Your task to perform on an android device: open app "HBO Max: Stream TV & Movies" (install if not already installed), go to login, and select forgot password Image 0: 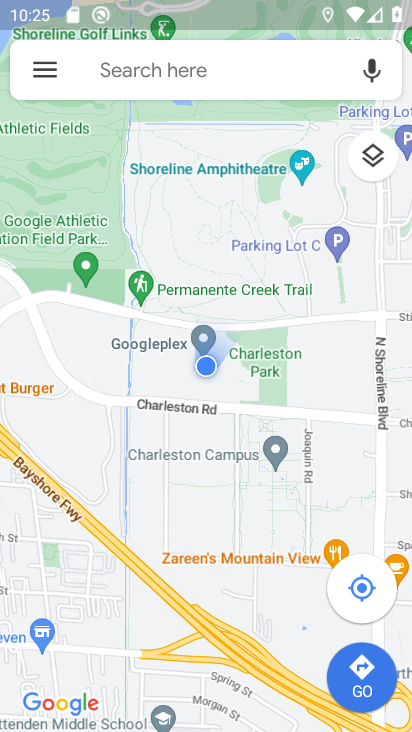
Step 0: click (165, 62)
Your task to perform on an android device: open app "HBO Max: Stream TV & Movies" (install if not already installed), go to login, and select forgot password Image 1: 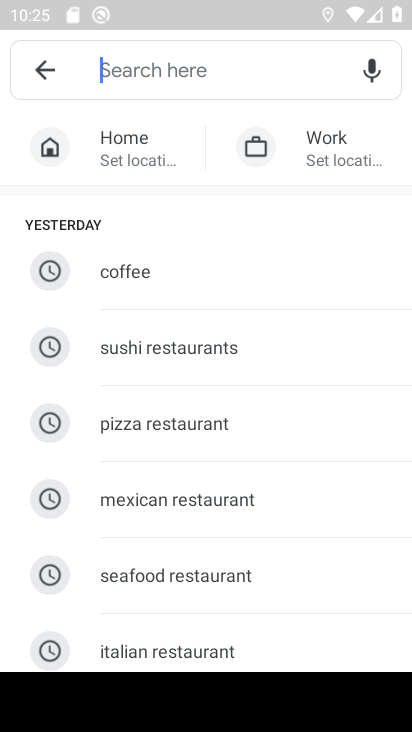
Step 1: type "HBO Max: Stream TV & Movies"
Your task to perform on an android device: open app "HBO Max: Stream TV & Movies" (install if not already installed), go to login, and select forgot password Image 2: 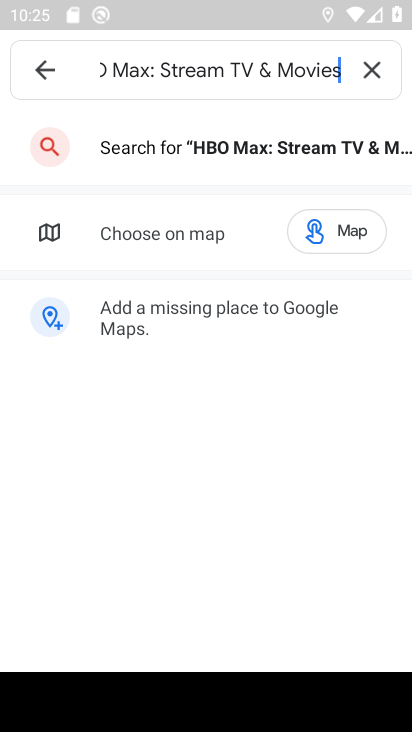
Step 2: click (215, 145)
Your task to perform on an android device: open app "HBO Max: Stream TV & Movies" (install if not already installed), go to login, and select forgot password Image 3: 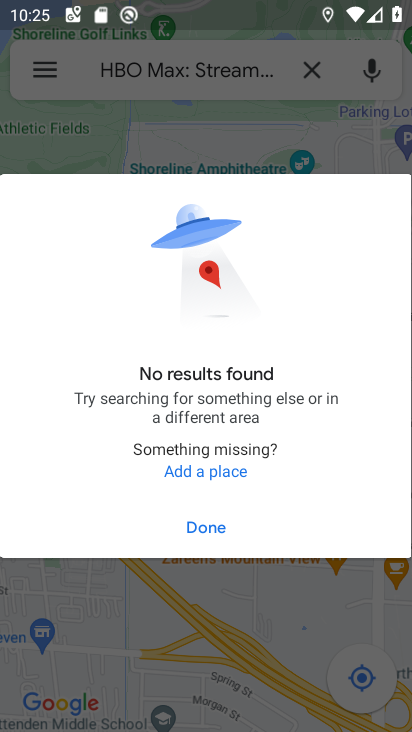
Step 3: press home button
Your task to perform on an android device: open app "HBO Max: Stream TV & Movies" (install if not already installed), go to login, and select forgot password Image 4: 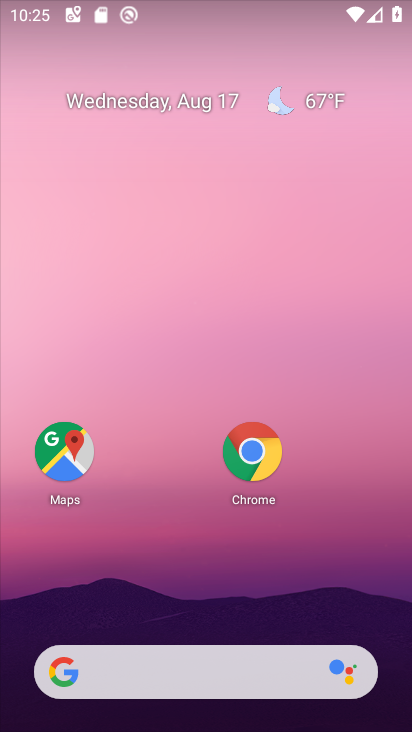
Step 4: drag from (168, 602) to (224, 195)
Your task to perform on an android device: open app "HBO Max: Stream TV & Movies" (install if not already installed), go to login, and select forgot password Image 5: 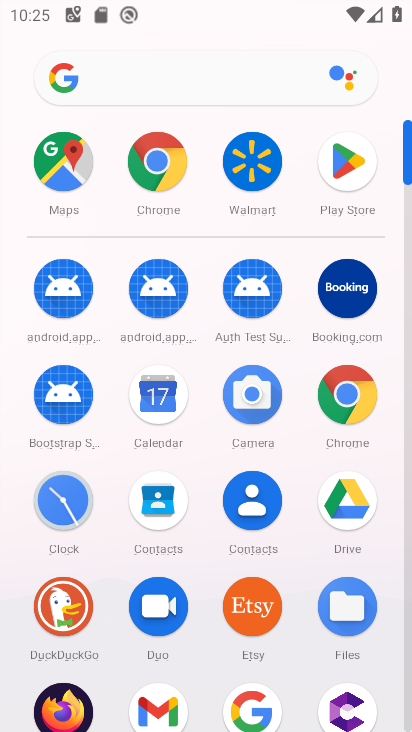
Step 5: click (345, 172)
Your task to perform on an android device: open app "HBO Max: Stream TV & Movies" (install if not already installed), go to login, and select forgot password Image 6: 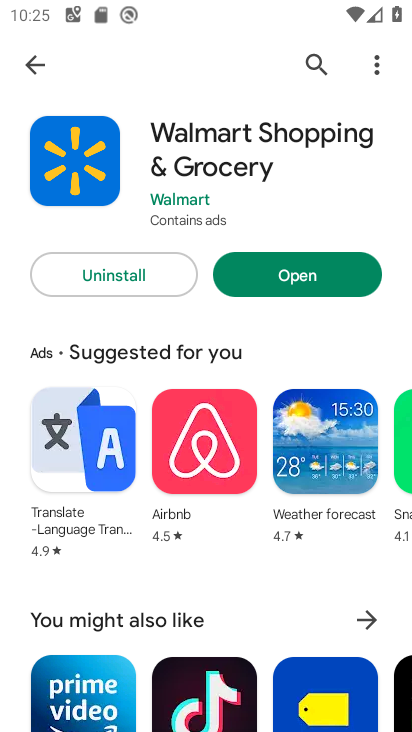
Step 6: click (33, 60)
Your task to perform on an android device: open app "HBO Max: Stream TV & Movies" (install if not already installed), go to login, and select forgot password Image 7: 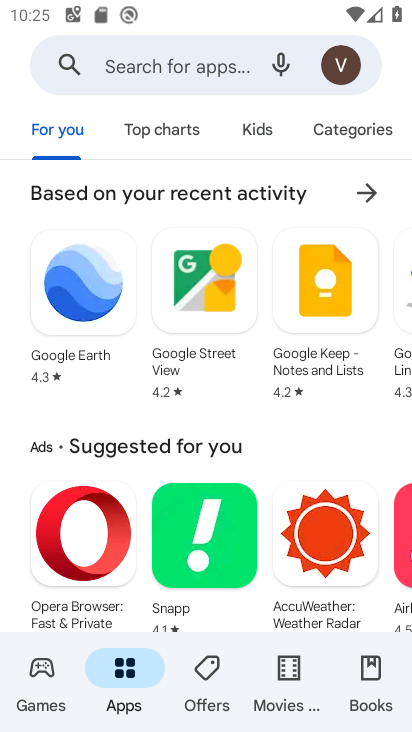
Step 7: click (108, 60)
Your task to perform on an android device: open app "HBO Max: Stream TV & Movies" (install if not already installed), go to login, and select forgot password Image 8: 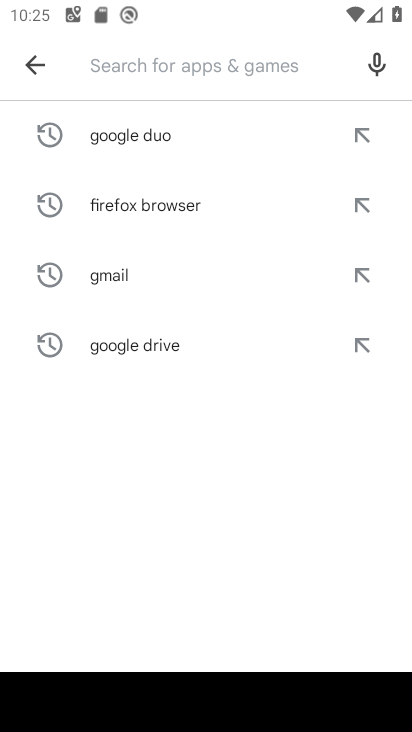
Step 8: type "HBO Max: Stream TV & Movies"
Your task to perform on an android device: open app "HBO Max: Stream TV & Movies" (install if not already installed), go to login, and select forgot password Image 9: 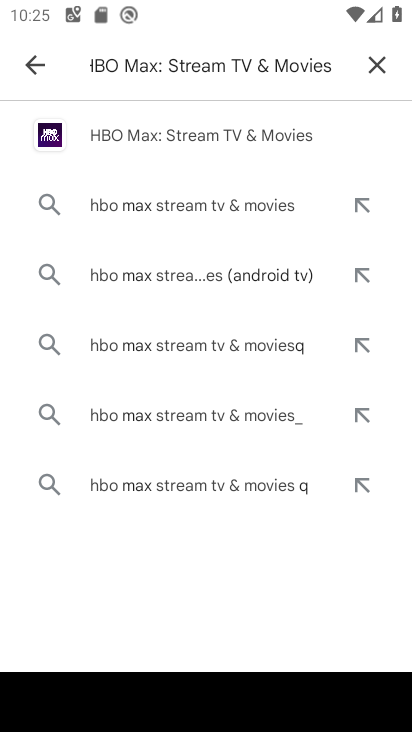
Step 9: click (181, 135)
Your task to perform on an android device: open app "HBO Max: Stream TV & Movies" (install if not already installed), go to login, and select forgot password Image 10: 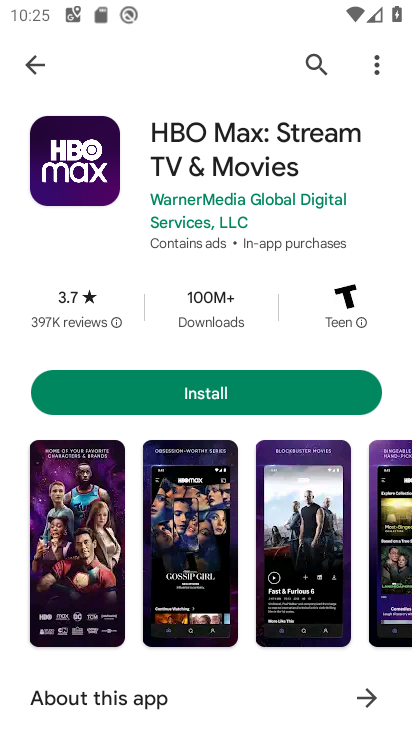
Step 10: click (209, 384)
Your task to perform on an android device: open app "HBO Max: Stream TV & Movies" (install if not already installed), go to login, and select forgot password Image 11: 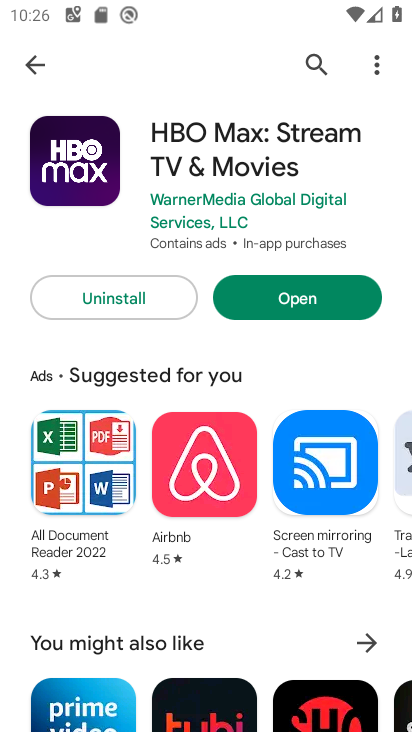
Step 11: click (278, 307)
Your task to perform on an android device: open app "HBO Max: Stream TV & Movies" (install if not already installed), go to login, and select forgot password Image 12: 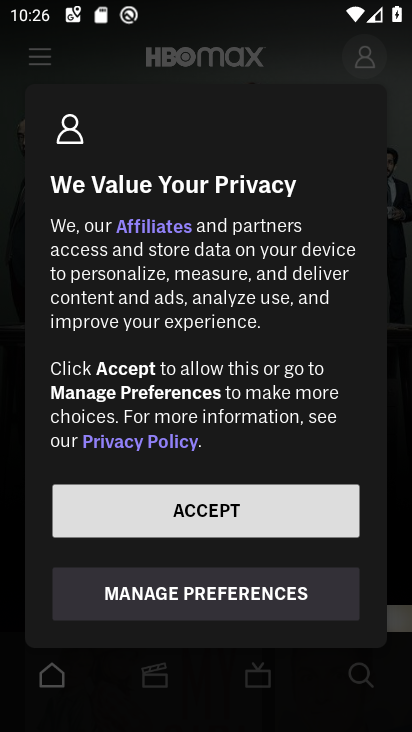
Step 12: click (312, 525)
Your task to perform on an android device: open app "HBO Max: Stream TV & Movies" (install if not already installed), go to login, and select forgot password Image 13: 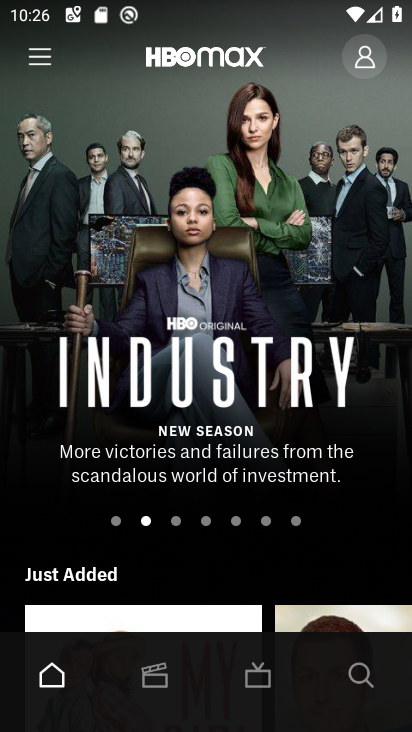
Step 13: click (367, 65)
Your task to perform on an android device: open app "HBO Max: Stream TV & Movies" (install if not already installed), go to login, and select forgot password Image 14: 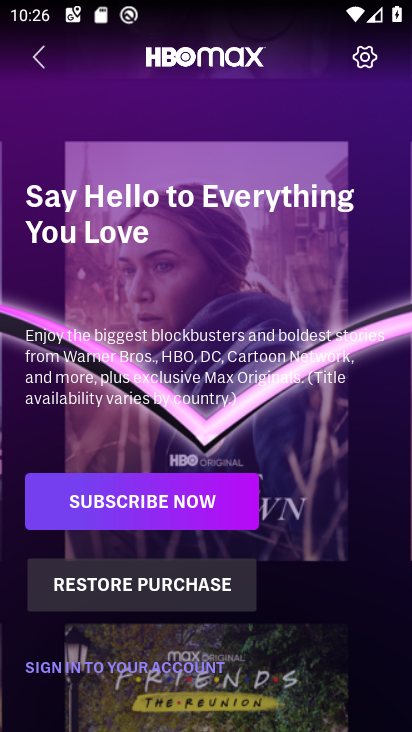
Step 14: click (92, 664)
Your task to perform on an android device: open app "HBO Max: Stream TV & Movies" (install if not already installed), go to login, and select forgot password Image 15: 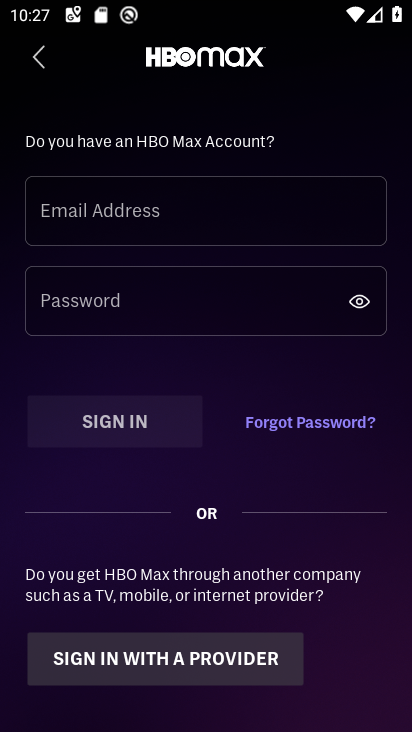
Step 15: click (339, 430)
Your task to perform on an android device: open app "HBO Max: Stream TV & Movies" (install if not already installed), go to login, and select forgot password Image 16: 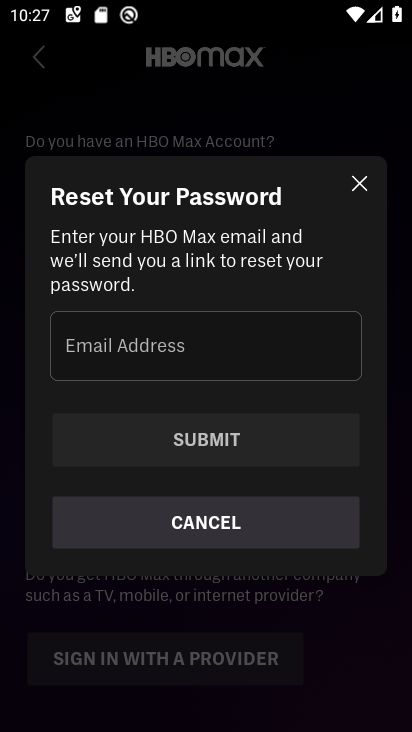
Step 16: task complete